Your task to perform on an android device: Open sound settings Image 0: 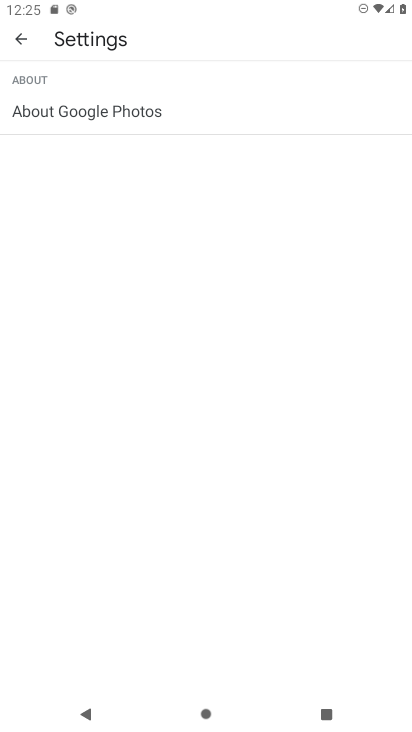
Step 0: press back button
Your task to perform on an android device: Open sound settings Image 1: 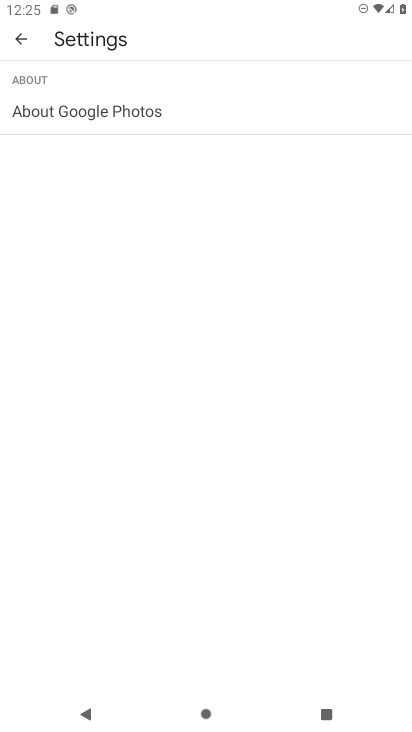
Step 1: press home button
Your task to perform on an android device: Open sound settings Image 2: 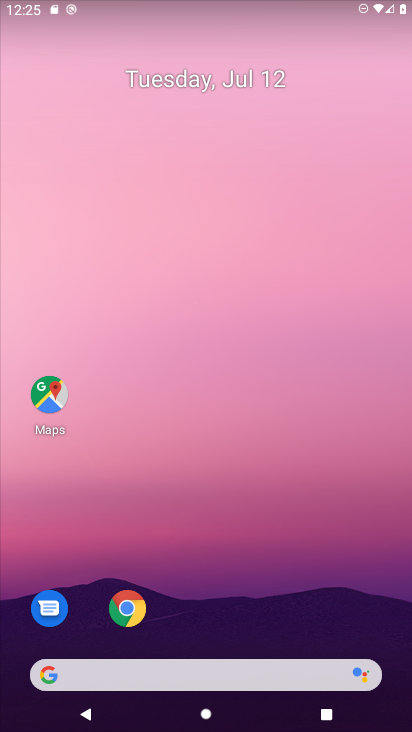
Step 2: drag from (216, 626) to (130, 172)
Your task to perform on an android device: Open sound settings Image 3: 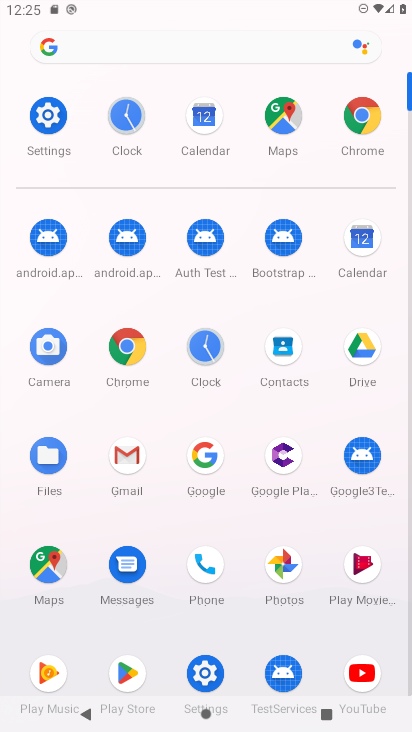
Step 3: click (39, 132)
Your task to perform on an android device: Open sound settings Image 4: 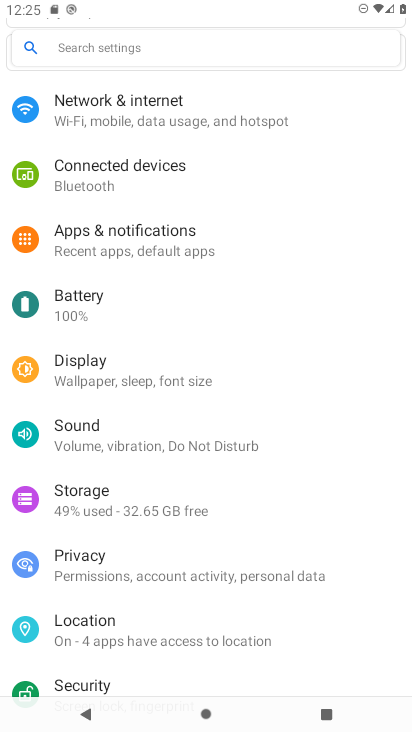
Step 4: click (40, 432)
Your task to perform on an android device: Open sound settings Image 5: 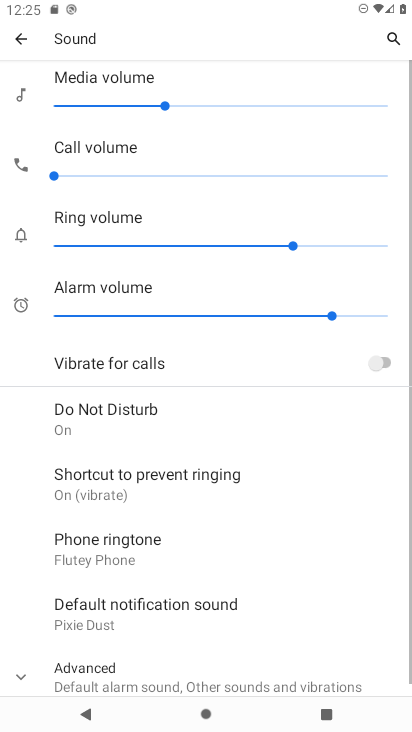
Step 5: drag from (186, 573) to (141, 152)
Your task to perform on an android device: Open sound settings Image 6: 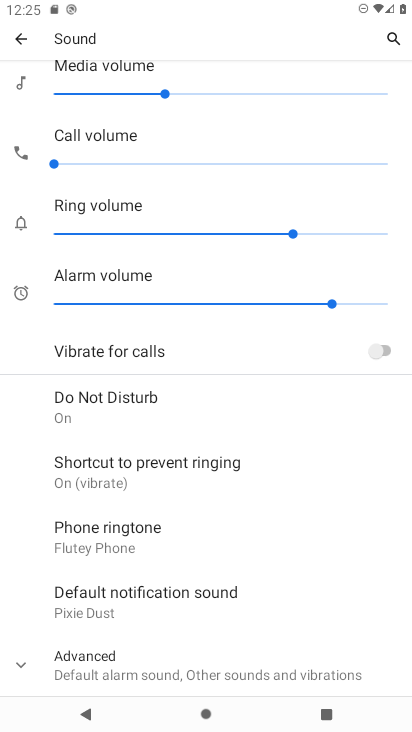
Step 6: click (150, 632)
Your task to perform on an android device: Open sound settings Image 7: 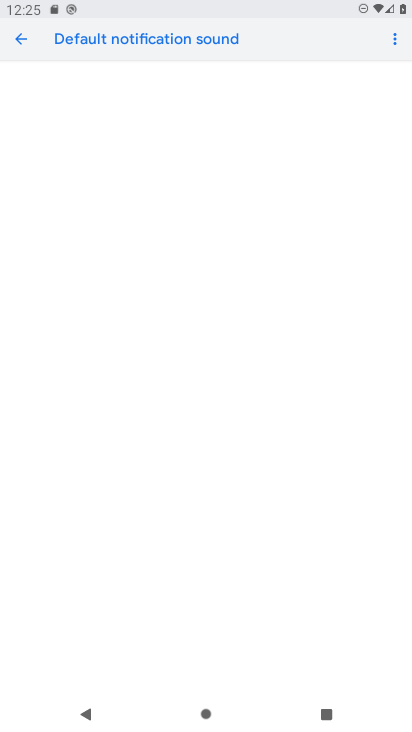
Step 7: task complete